Your task to perform on an android device: turn off sleep mode Image 0: 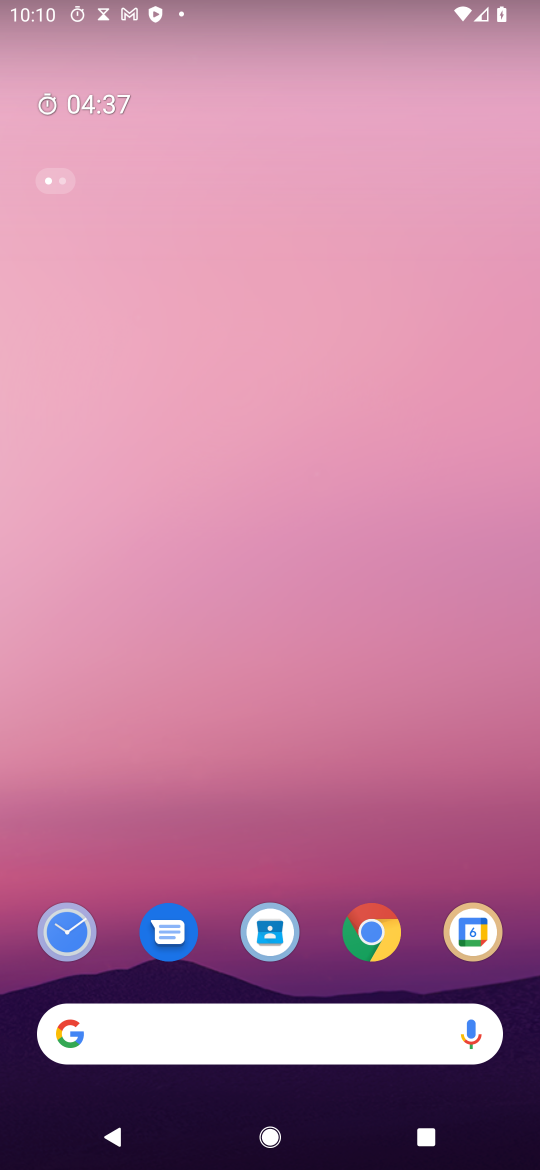
Step 0: drag from (427, 841) to (173, 285)
Your task to perform on an android device: turn off sleep mode Image 1: 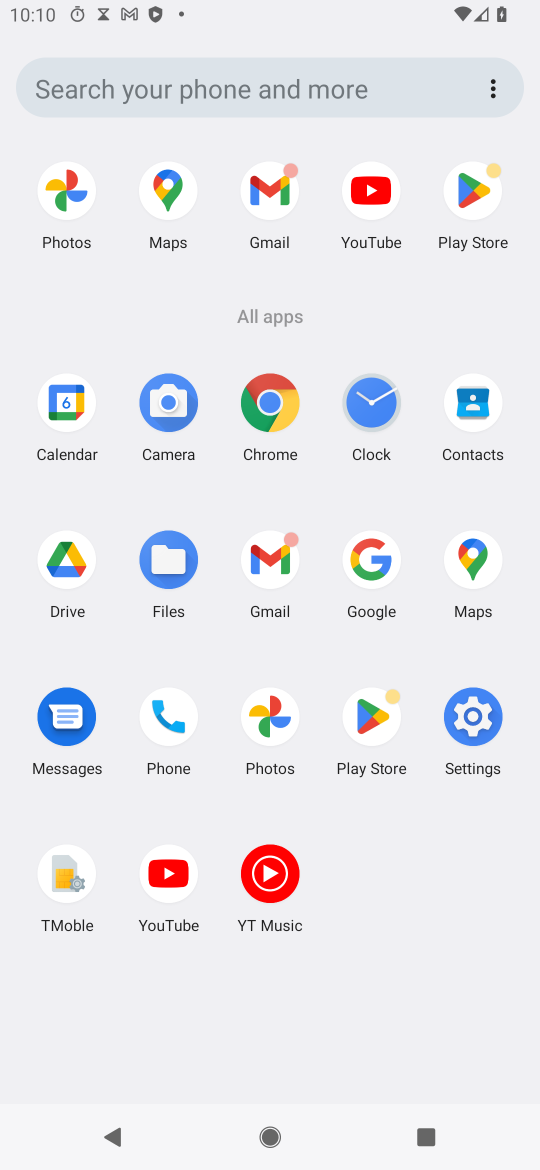
Step 1: click (473, 709)
Your task to perform on an android device: turn off sleep mode Image 2: 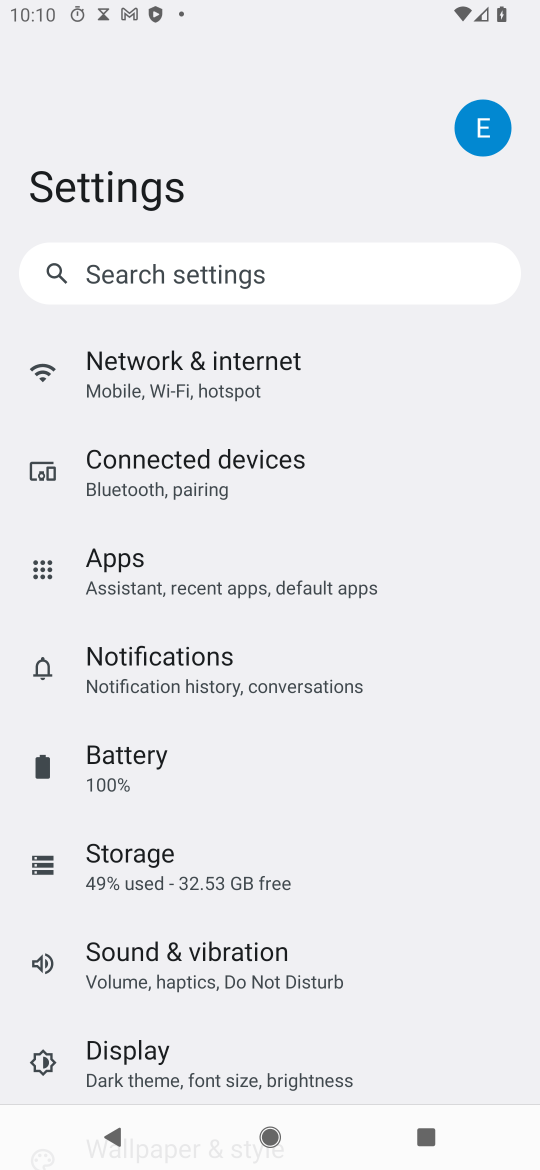
Step 2: click (328, 1071)
Your task to perform on an android device: turn off sleep mode Image 3: 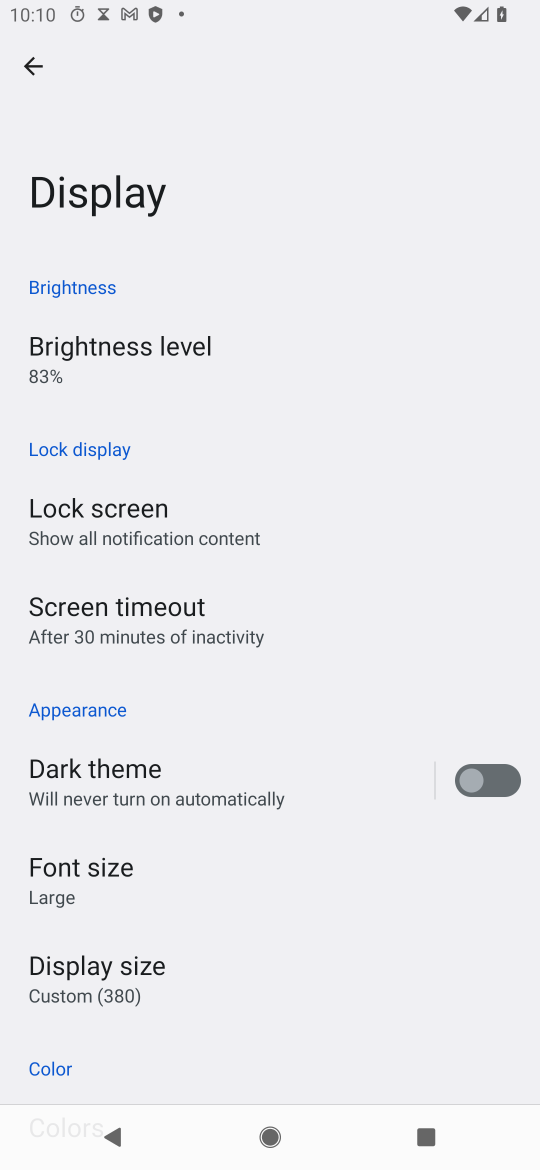
Step 3: task complete